Your task to perform on an android device: Turn on the flashlight Image 0: 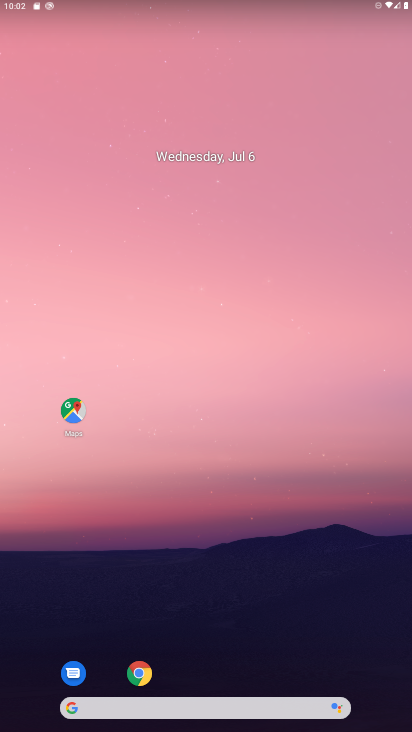
Step 0: drag from (246, 237) to (295, 619)
Your task to perform on an android device: Turn on the flashlight Image 1: 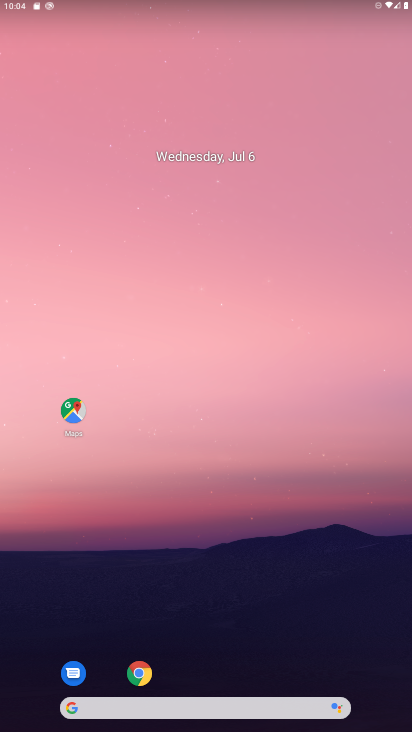
Step 1: task complete